Your task to perform on an android device: check storage Image 0: 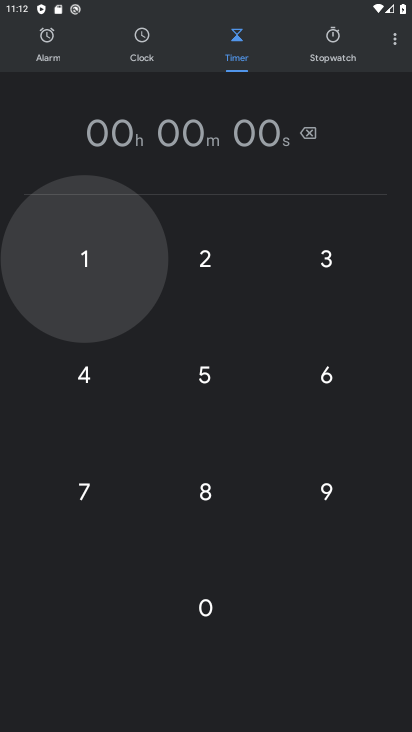
Step 0: press home button
Your task to perform on an android device: check storage Image 1: 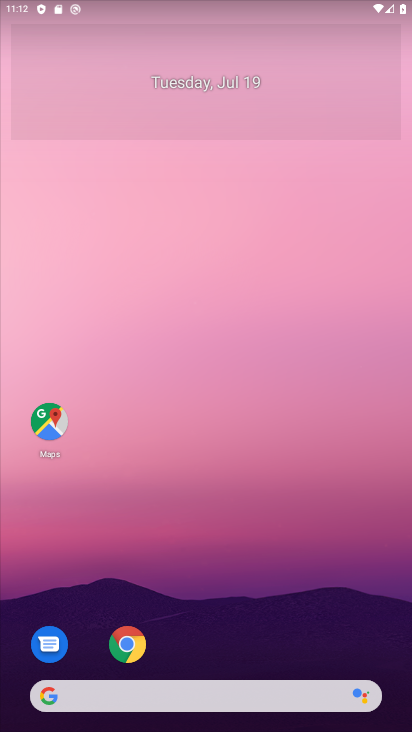
Step 1: drag from (74, 589) to (143, 290)
Your task to perform on an android device: check storage Image 2: 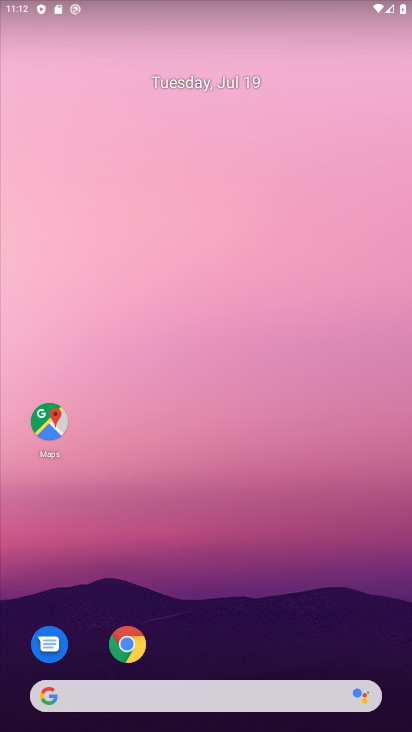
Step 2: drag from (104, 466) to (185, 230)
Your task to perform on an android device: check storage Image 3: 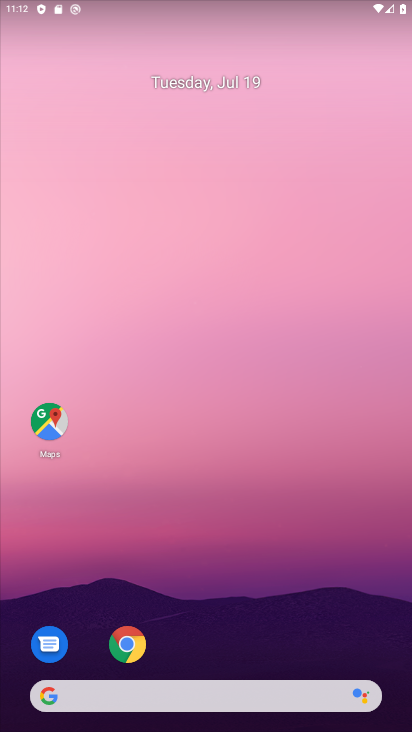
Step 3: drag from (13, 674) to (182, 208)
Your task to perform on an android device: check storage Image 4: 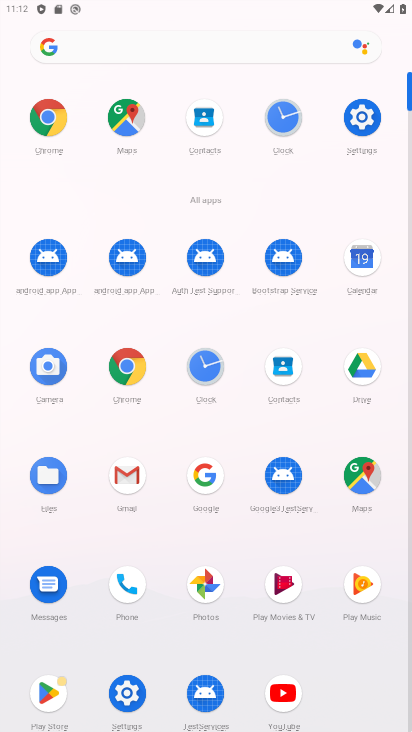
Step 4: click (108, 694)
Your task to perform on an android device: check storage Image 5: 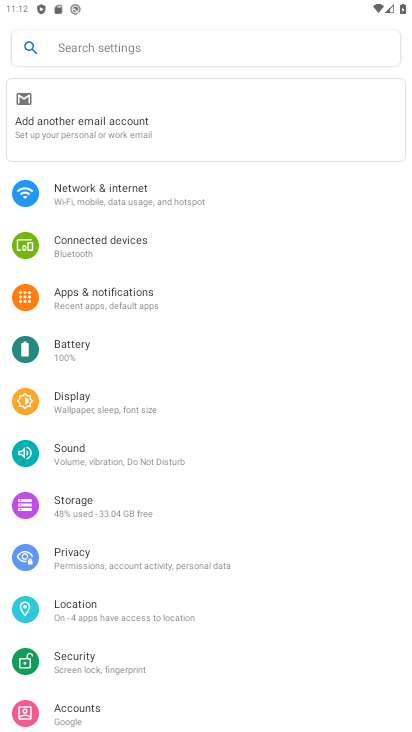
Step 5: click (116, 515)
Your task to perform on an android device: check storage Image 6: 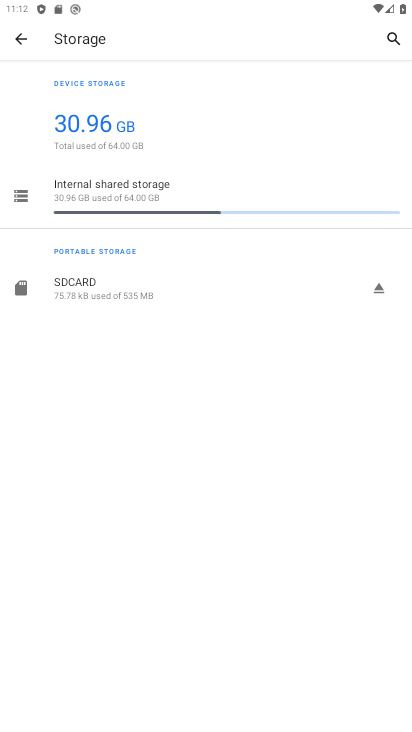
Step 6: task complete